Your task to perform on an android device: toggle translation in the chrome app Image 0: 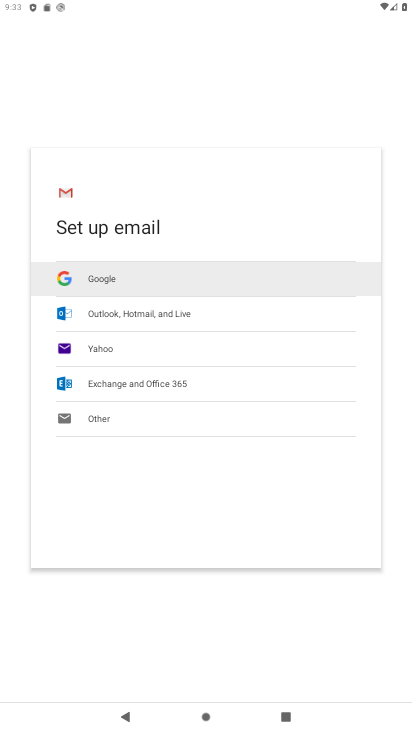
Step 0: press home button
Your task to perform on an android device: toggle translation in the chrome app Image 1: 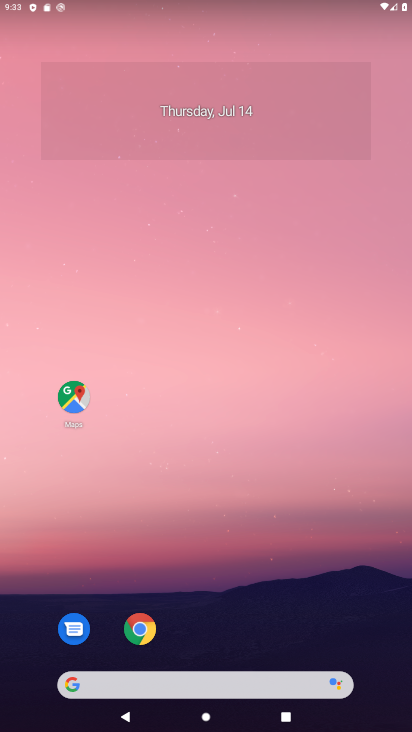
Step 1: click (146, 632)
Your task to perform on an android device: toggle translation in the chrome app Image 2: 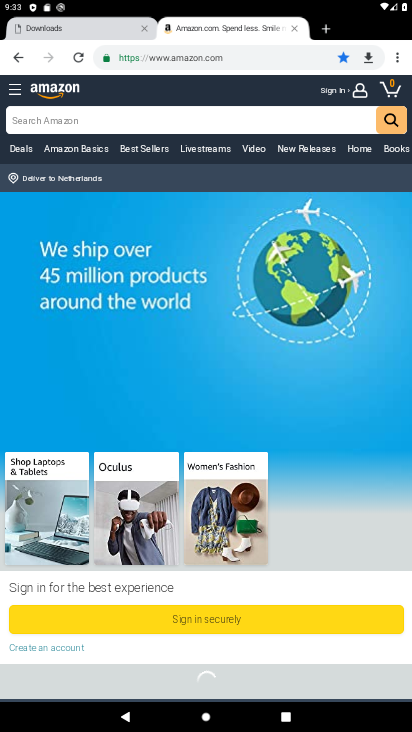
Step 2: click (390, 57)
Your task to perform on an android device: toggle translation in the chrome app Image 3: 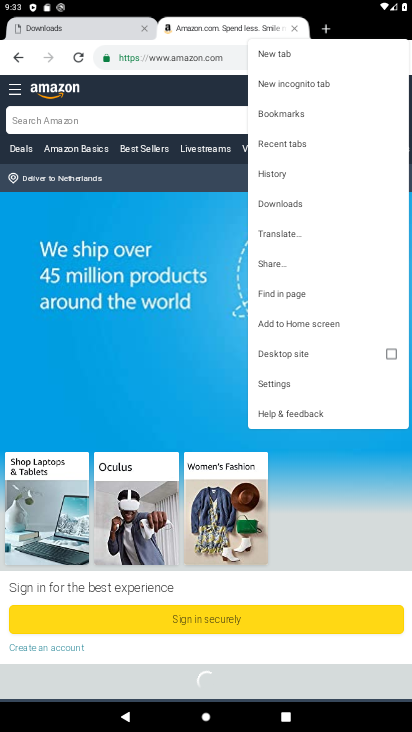
Step 3: click (270, 383)
Your task to perform on an android device: toggle translation in the chrome app Image 4: 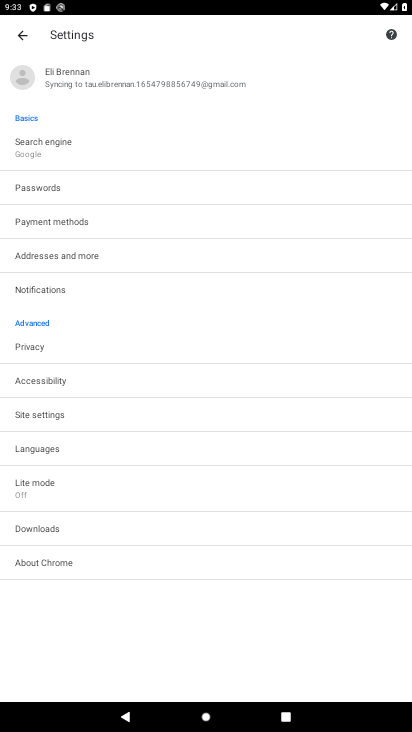
Step 4: click (40, 447)
Your task to perform on an android device: toggle translation in the chrome app Image 5: 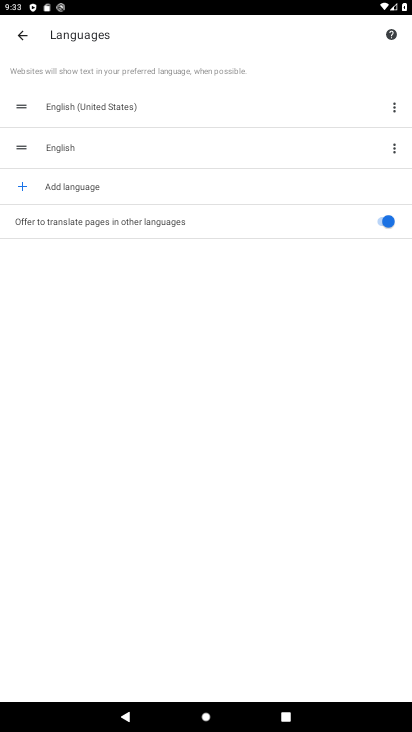
Step 5: click (388, 223)
Your task to perform on an android device: toggle translation in the chrome app Image 6: 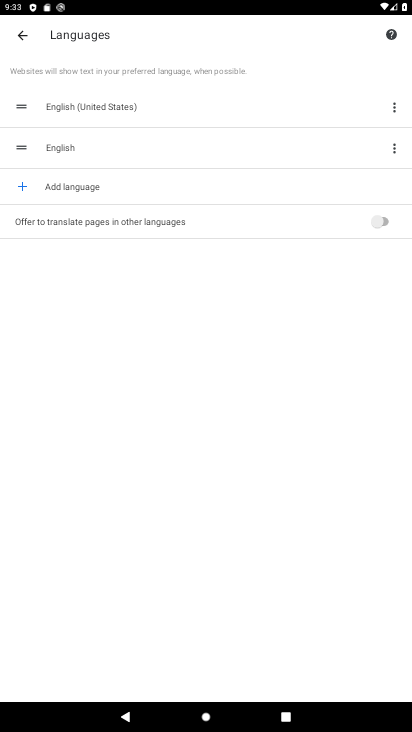
Step 6: task complete